Your task to perform on an android device: Do I have any events tomorrow? Image 0: 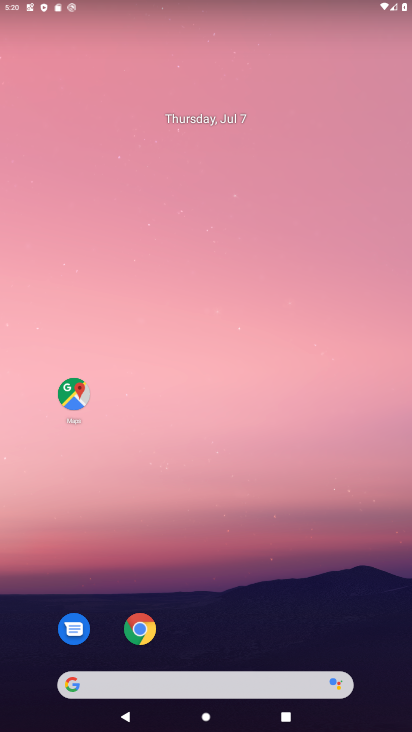
Step 0: drag from (290, 631) to (265, 266)
Your task to perform on an android device: Do I have any events tomorrow? Image 1: 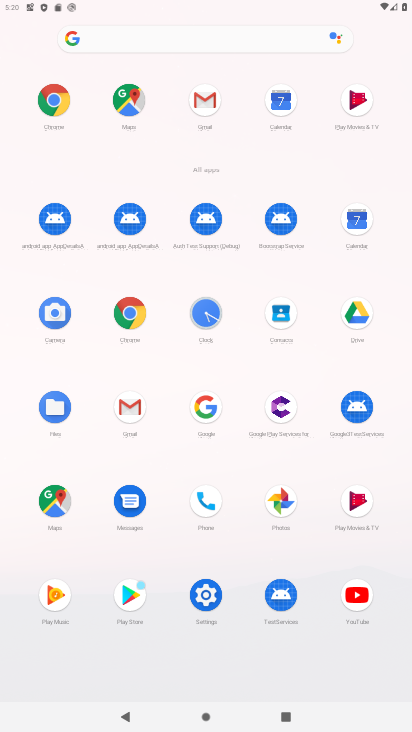
Step 1: click (275, 103)
Your task to perform on an android device: Do I have any events tomorrow? Image 2: 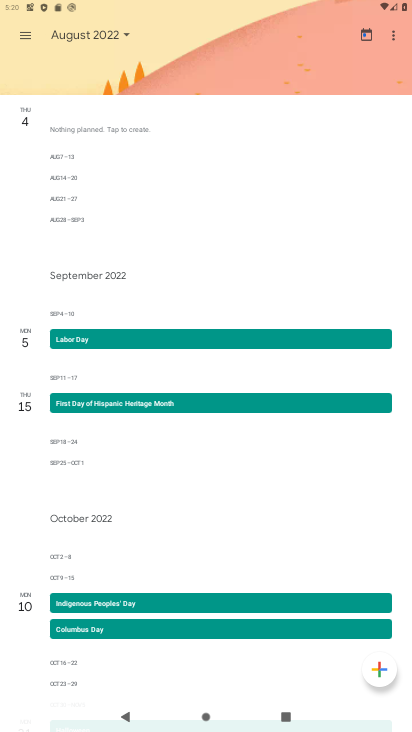
Step 2: click (97, 27)
Your task to perform on an android device: Do I have any events tomorrow? Image 3: 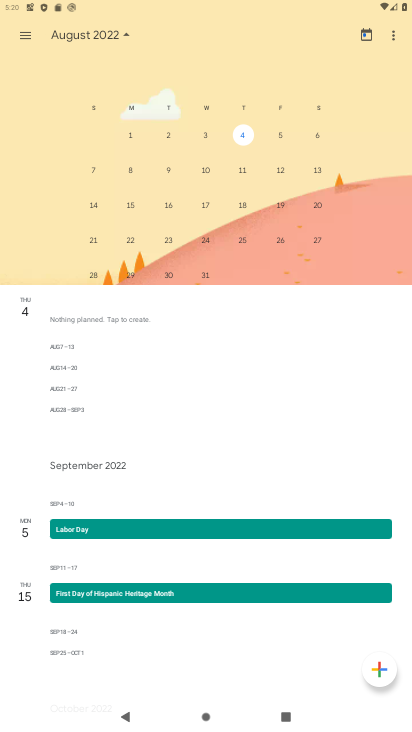
Step 3: drag from (131, 154) to (407, 169)
Your task to perform on an android device: Do I have any events tomorrow? Image 4: 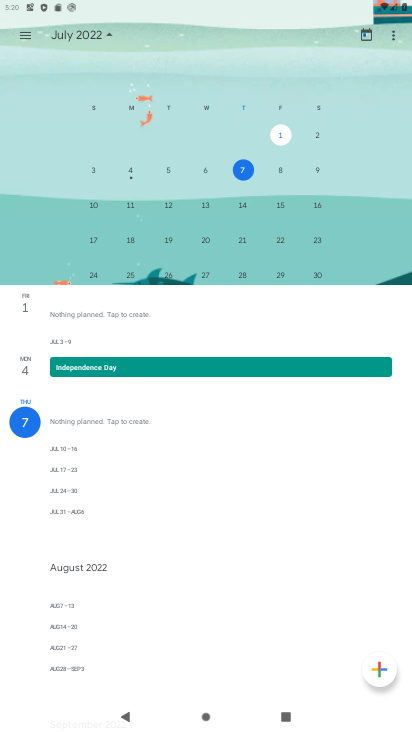
Step 4: click (280, 168)
Your task to perform on an android device: Do I have any events tomorrow? Image 5: 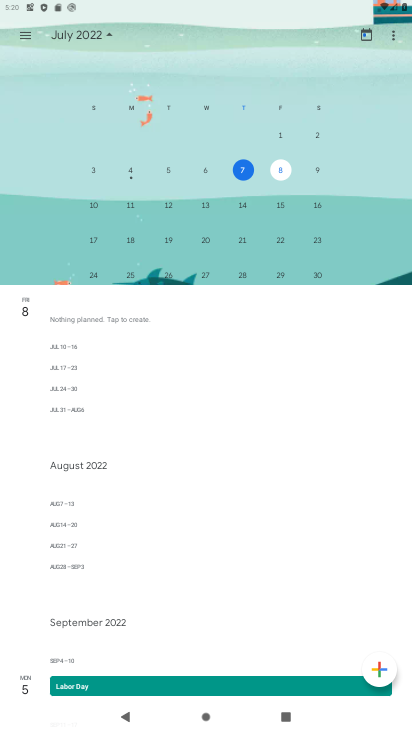
Step 5: task complete